Your task to perform on an android device: Is it going to rain tomorrow? Image 0: 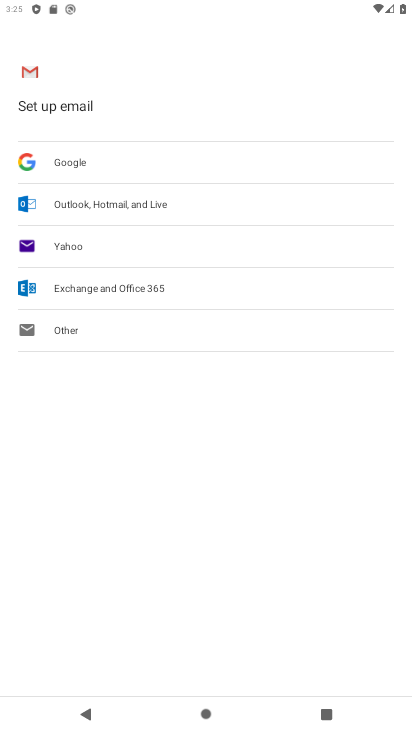
Step 0: press home button
Your task to perform on an android device: Is it going to rain tomorrow? Image 1: 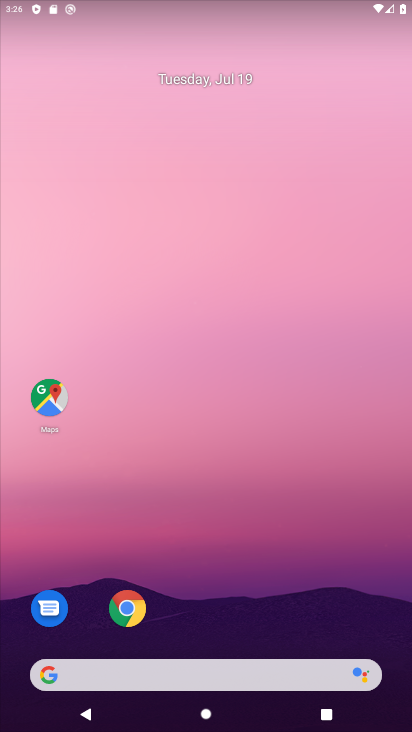
Step 1: drag from (87, 490) to (269, 101)
Your task to perform on an android device: Is it going to rain tomorrow? Image 2: 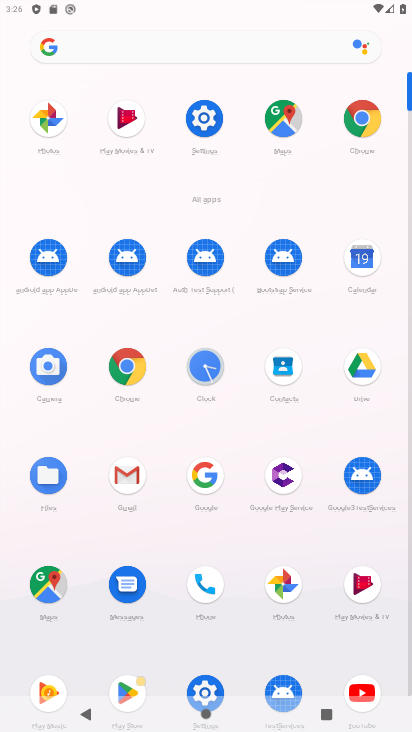
Step 2: click (368, 260)
Your task to perform on an android device: Is it going to rain tomorrow? Image 3: 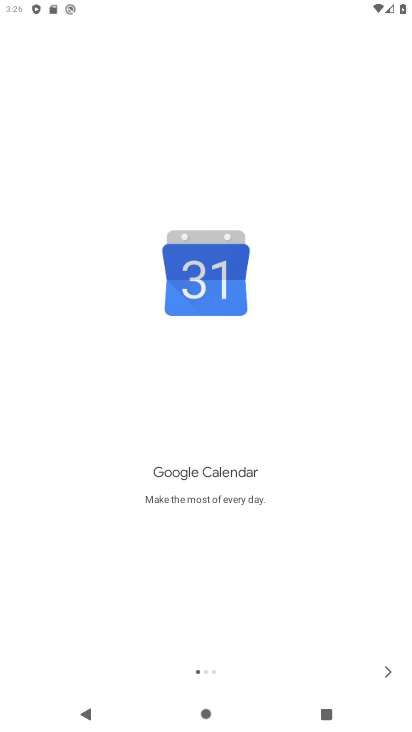
Step 3: click (385, 674)
Your task to perform on an android device: Is it going to rain tomorrow? Image 4: 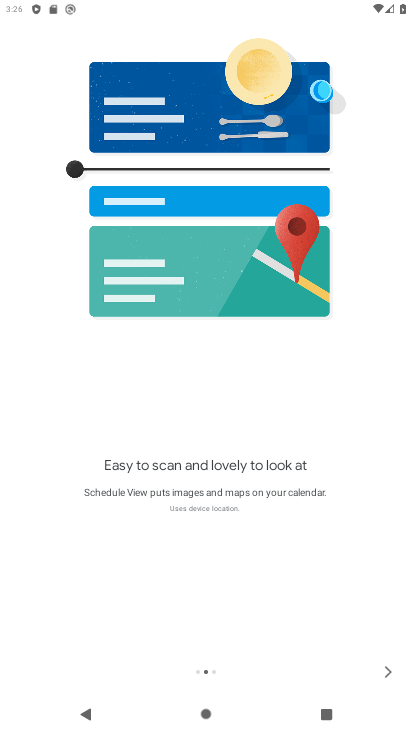
Step 4: click (387, 671)
Your task to perform on an android device: Is it going to rain tomorrow? Image 5: 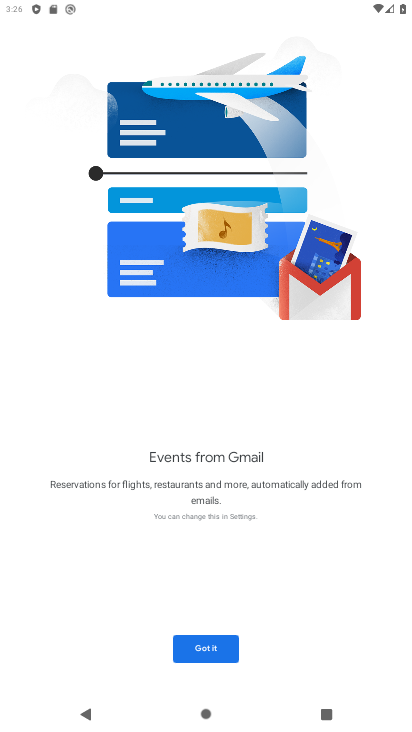
Step 5: click (216, 643)
Your task to perform on an android device: Is it going to rain tomorrow? Image 6: 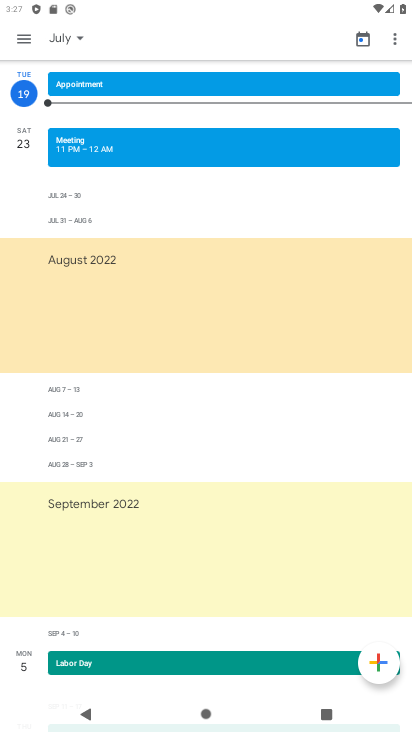
Step 6: click (64, 33)
Your task to perform on an android device: Is it going to rain tomorrow? Image 7: 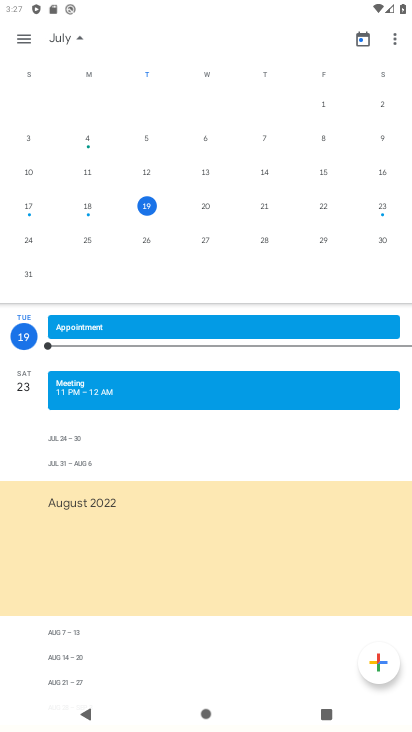
Step 7: click (217, 210)
Your task to perform on an android device: Is it going to rain tomorrow? Image 8: 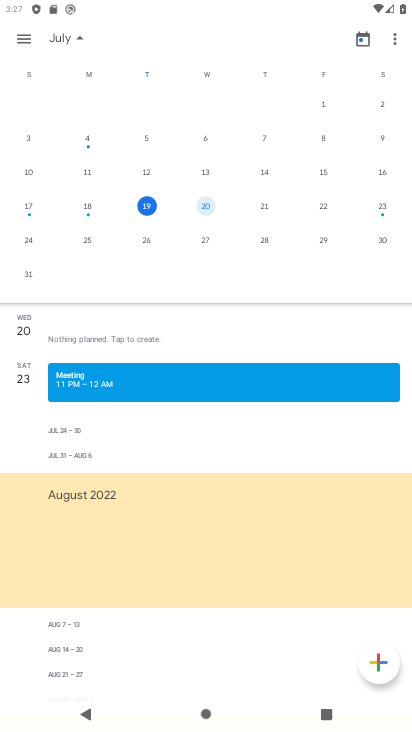
Step 8: task complete